Your task to perform on an android device: What's the weather going to be tomorrow? Image 0: 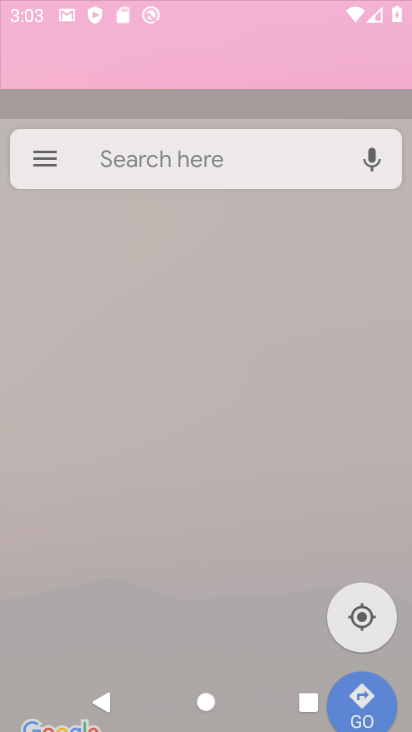
Step 0: press home button
Your task to perform on an android device: What's the weather going to be tomorrow? Image 1: 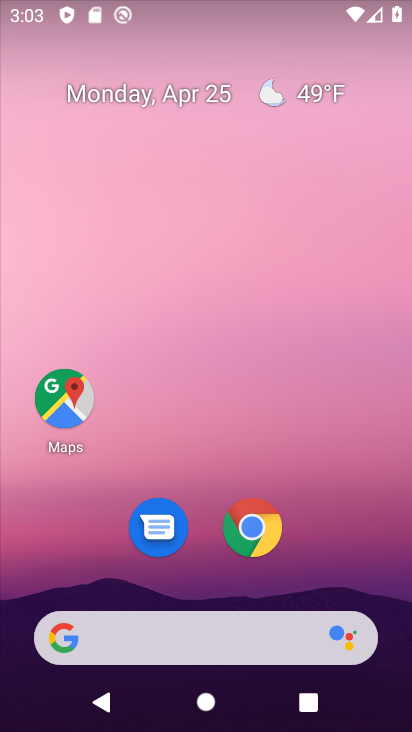
Step 1: click (185, 628)
Your task to perform on an android device: What's the weather going to be tomorrow? Image 2: 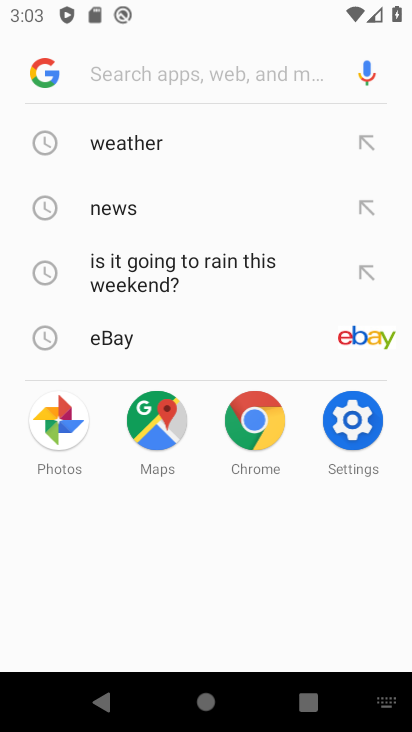
Step 2: click (107, 142)
Your task to perform on an android device: What's the weather going to be tomorrow? Image 3: 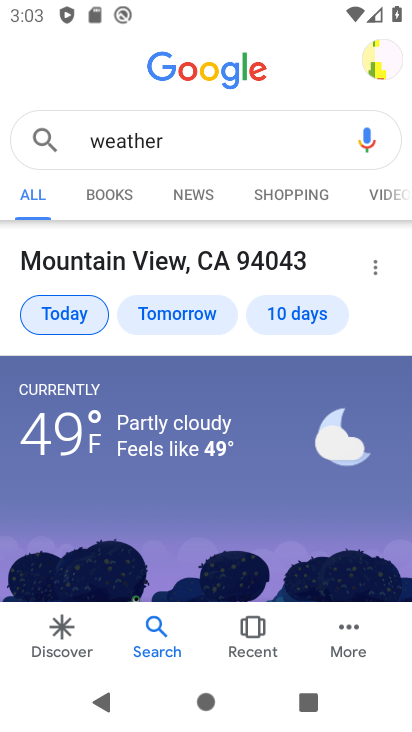
Step 3: click (175, 317)
Your task to perform on an android device: What's the weather going to be tomorrow? Image 4: 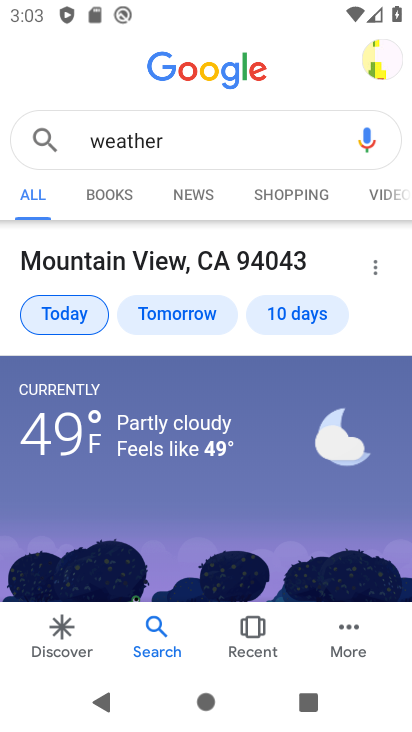
Step 4: click (175, 317)
Your task to perform on an android device: What's the weather going to be tomorrow? Image 5: 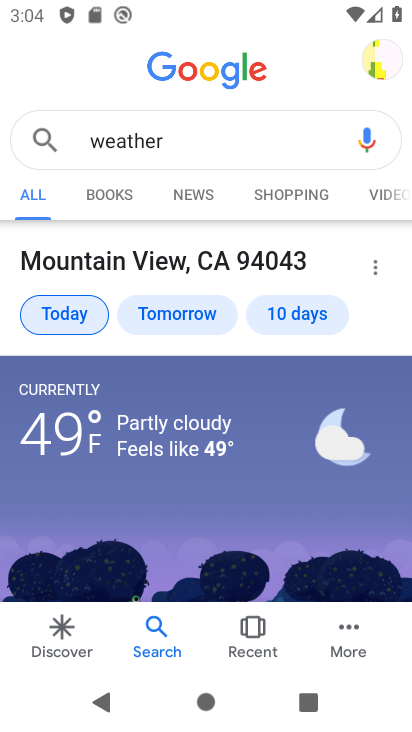
Step 5: click (175, 317)
Your task to perform on an android device: What's the weather going to be tomorrow? Image 6: 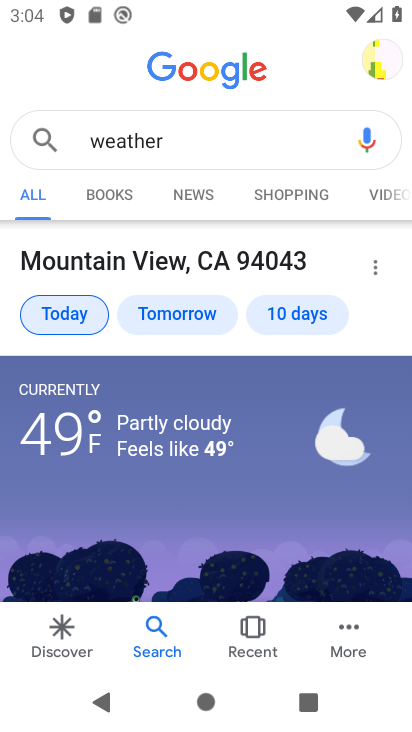
Step 6: click (166, 321)
Your task to perform on an android device: What's the weather going to be tomorrow? Image 7: 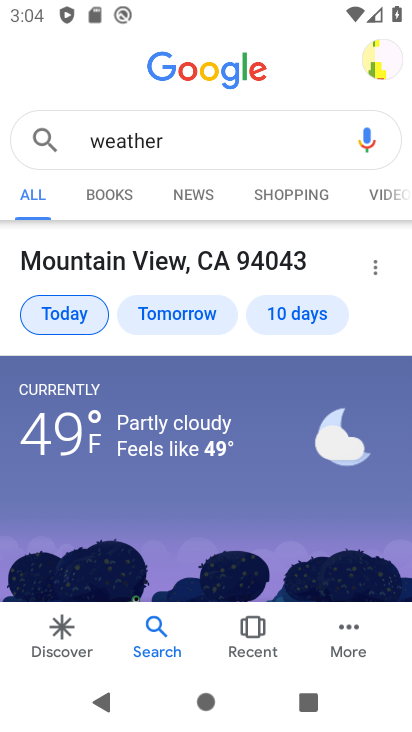
Step 7: click (185, 313)
Your task to perform on an android device: What's the weather going to be tomorrow? Image 8: 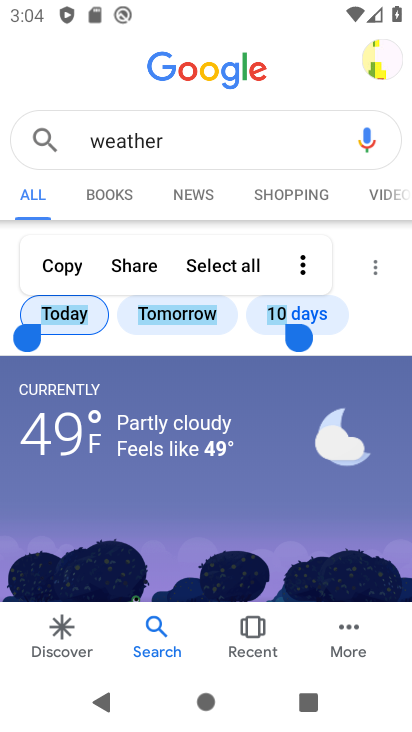
Step 8: click (174, 336)
Your task to perform on an android device: What's the weather going to be tomorrow? Image 9: 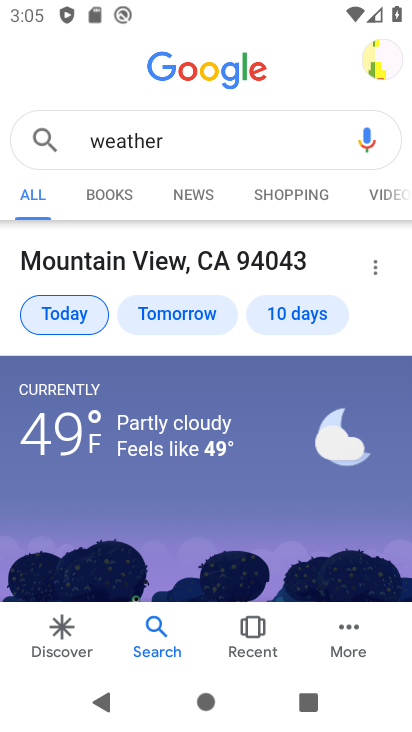
Step 9: click (175, 328)
Your task to perform on an android device: What's the weather going to be tomorrow? Image 10: 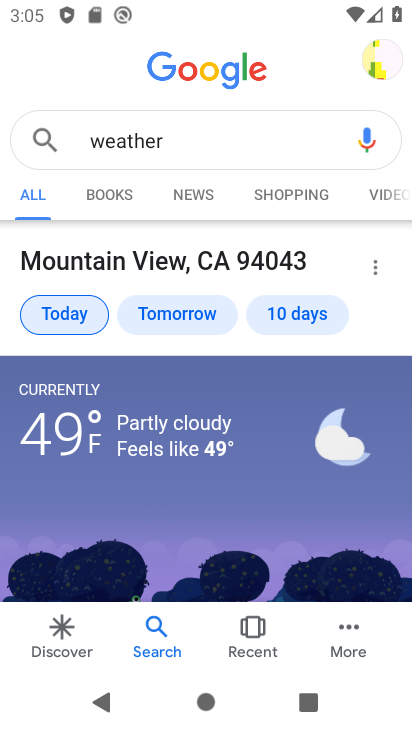
Step 10: click (185, 306)
Your task to perform on an android device: What's the weather going to be tomorrow? Image 11: 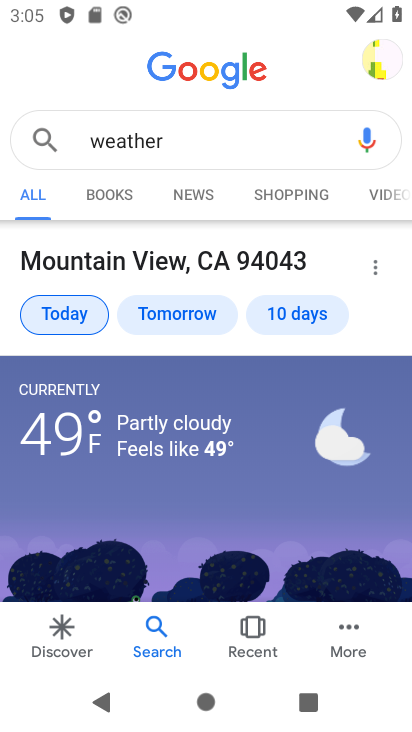
Step 11: click (185, 306)
Your task to perform on an android device: What's the weather going to be tomorrow? Image 12: 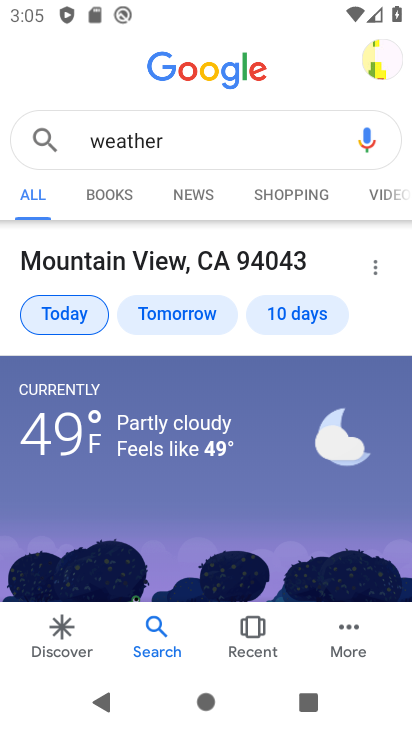
Step 12: click (185, 306)
Your task to perform on an android device: What's the weather going to be tomorrow? Image 13: 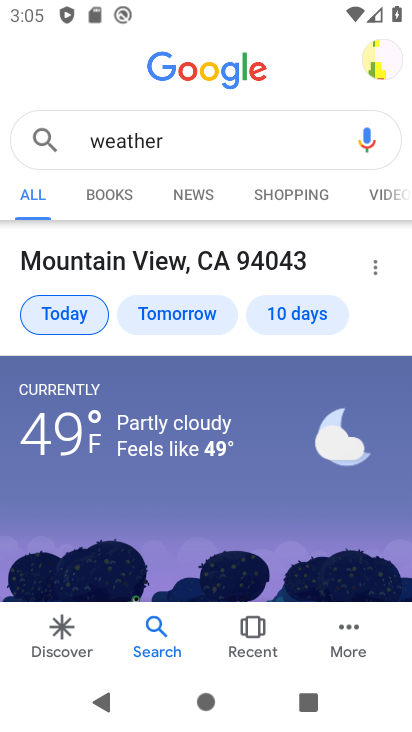
Step 13: drag from (223, 418) to (179, 103)
Your task to perform on an android device: What's the weather going to be tomorrow? Image 14: 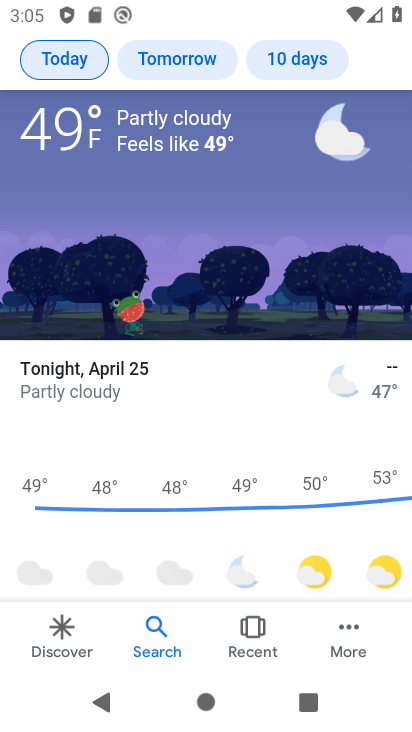
Step 14: drag from (165, 531) to (211, 151)
Your task to perform on an android device: What's the weather going to be tomorrow? Image 15: 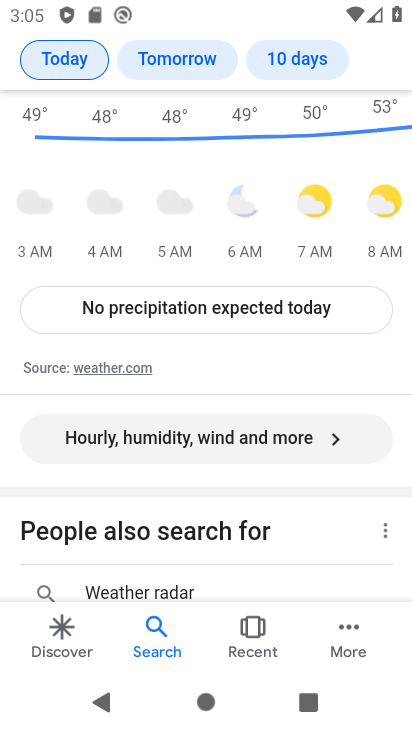
Step 15: click (236, 439)
Your task to perform on an android device: What's the weather going to be tomorrow? Image 16: 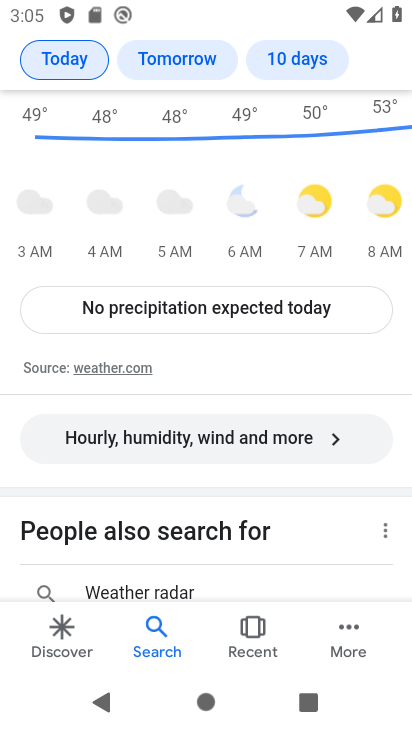
Step 16: task complete